Your task to perform on an android device: find photos in the google photos app Image 0: 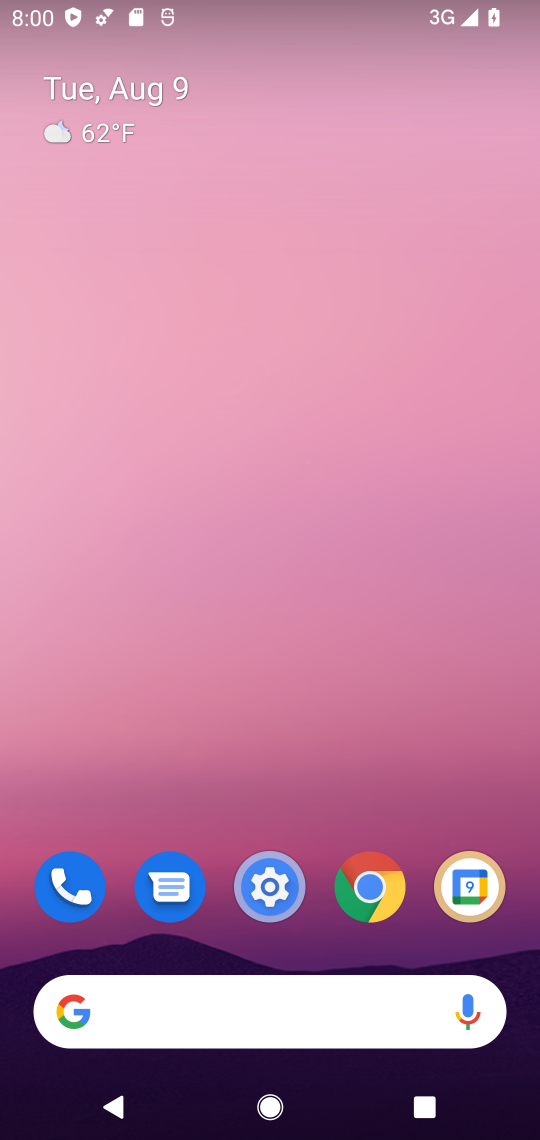
Step 0: drag from (309, 776) to (396, 11)
Your task to perform on an android device: find photos in the google photos app Image 1: 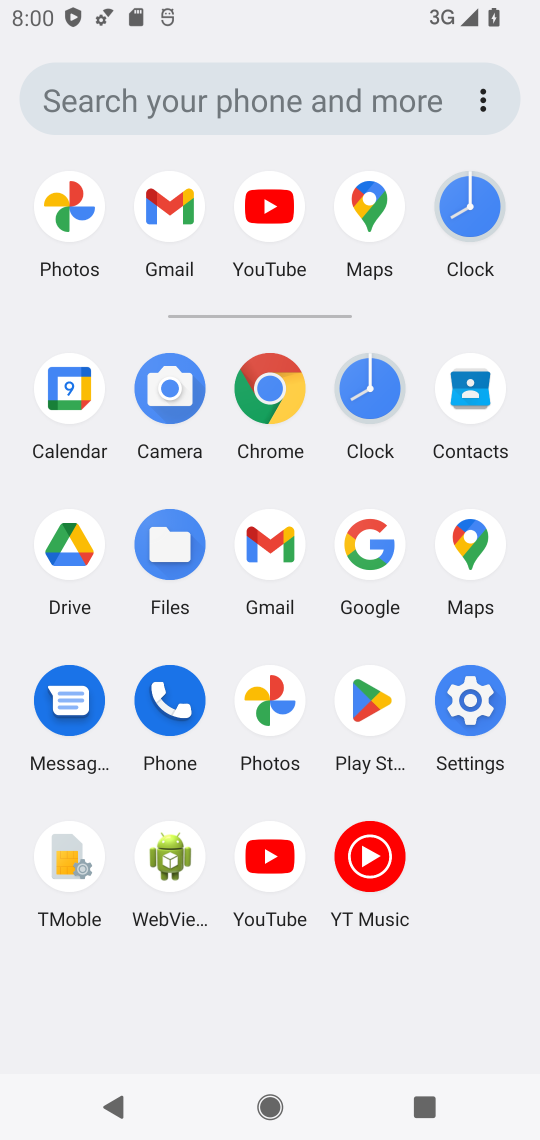
Step 1: click (271, 700)
Your task to perform on an android device: find photos in the google photos app Image 2: 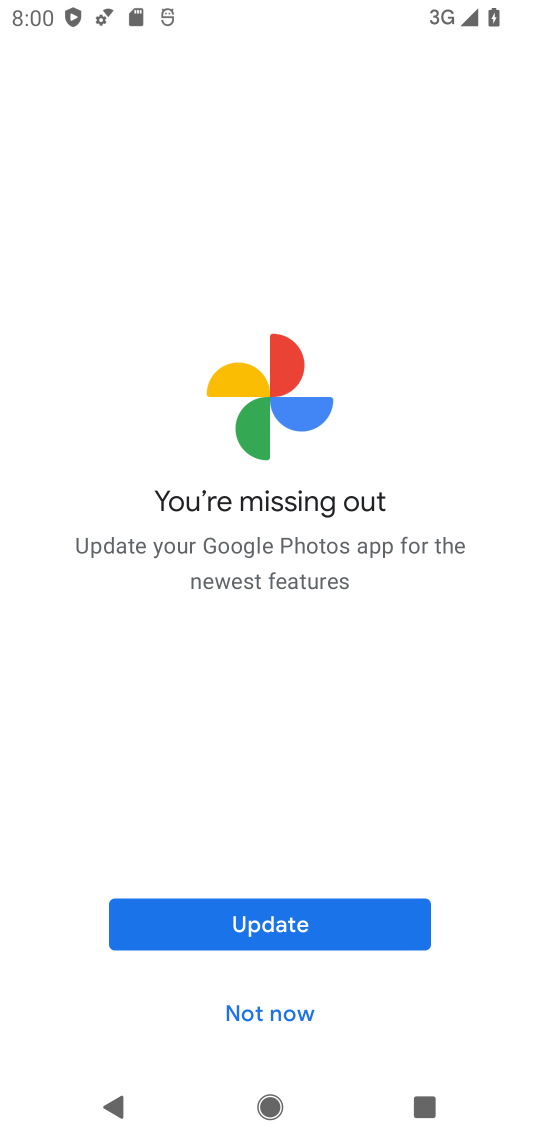
Step 2: click (284, 1013)
Your task to perform on an android device: find photos in the google photos app Image 3: 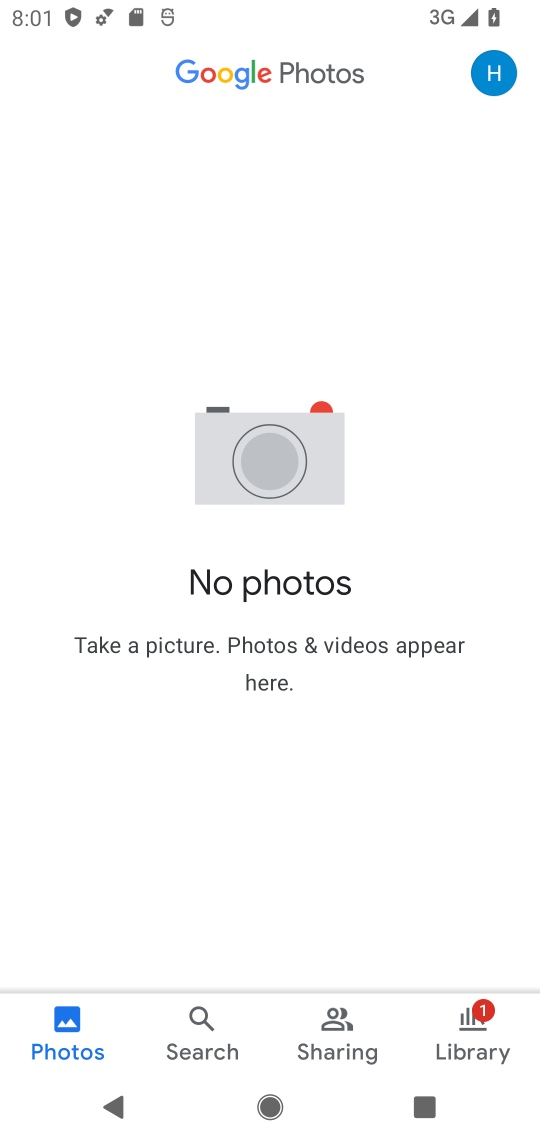
Step 3: task complete